Your task to perform on an android device: turn on wifi Image 0: 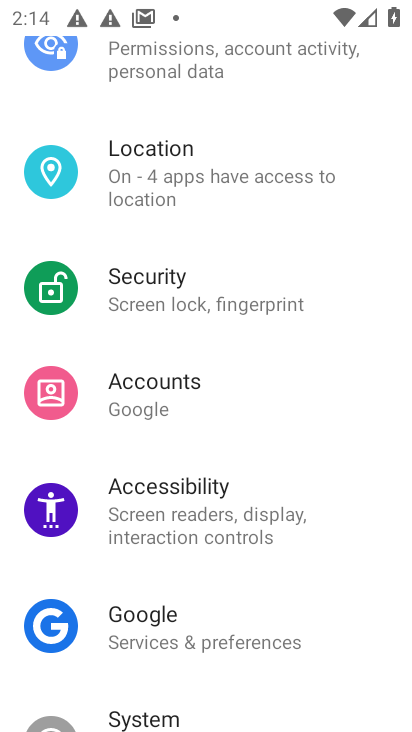
Step 0: press home button
Your task to perform on an android device: turn on wifi Image 1: 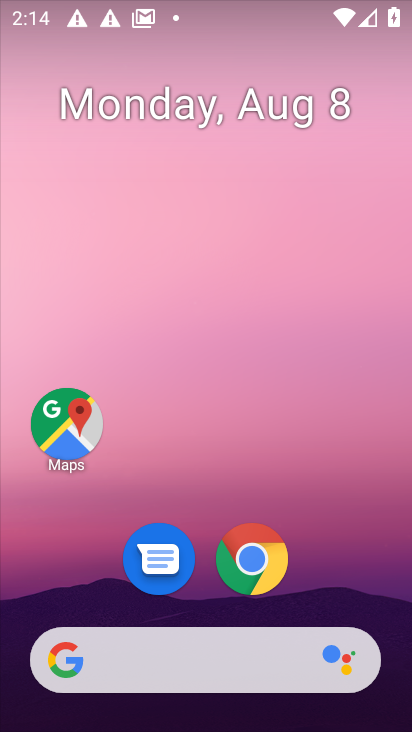
Step 1: drag from (202, 661) to (248, 187)
Your task to perform on an android device: turn on wifi Image 2: 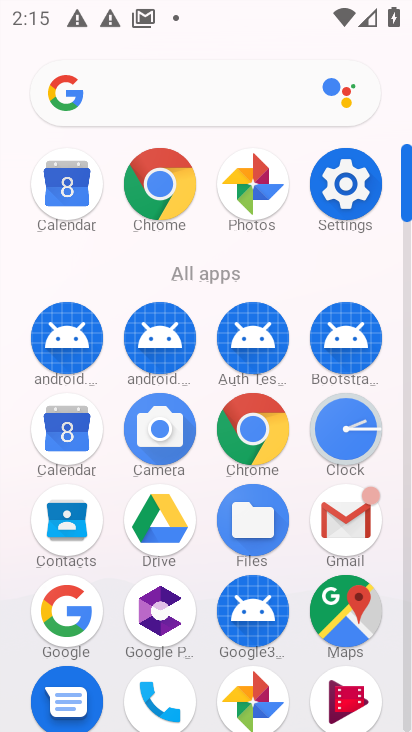
Step 2: click (345, 186)
Your task to perform on an android device: turn on wifi Image 3: 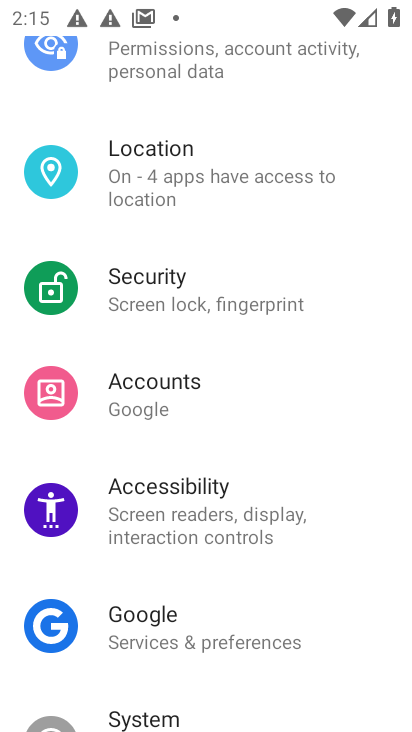
Step 3: drag from (339, 187) to (288, 300)
Your task to perform on an android device: turn on wifi Image 4: 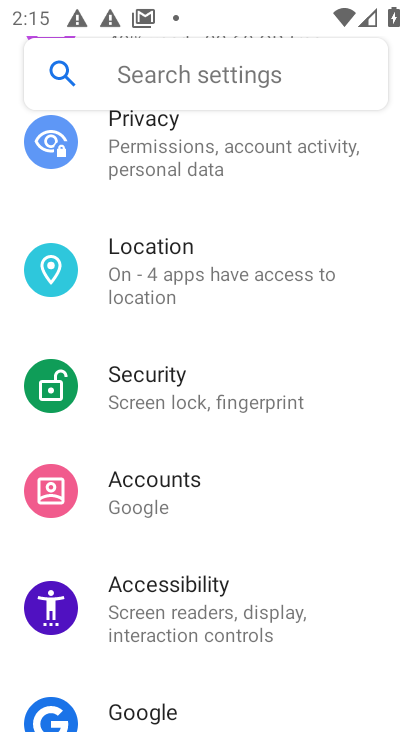
Step 4: drag from (318, 133) to (305, 434)
Your task to perform on an android device: turn on wifi Image 5: 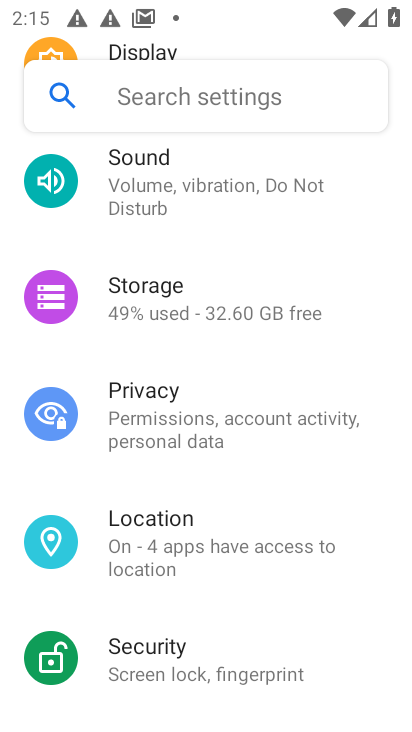
Step 5: drag from (266, 299) to (285, 393)
Your task to perform on an android device: turn on wifi Image 6: 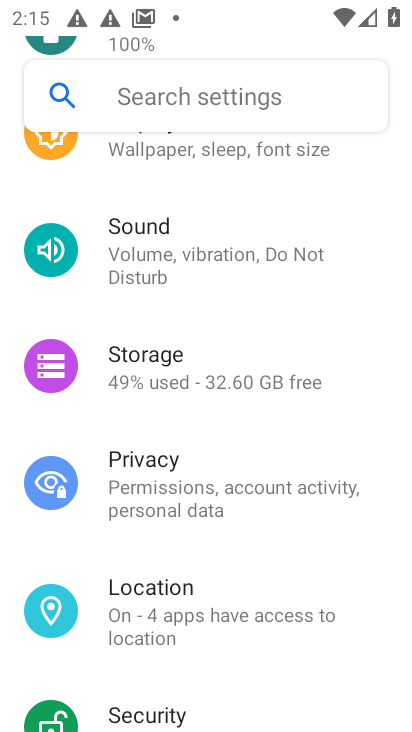
Step 6: drag from (289, 207) to (304, 352)
Your task to perform on an android device: turn on wifi Image 7: 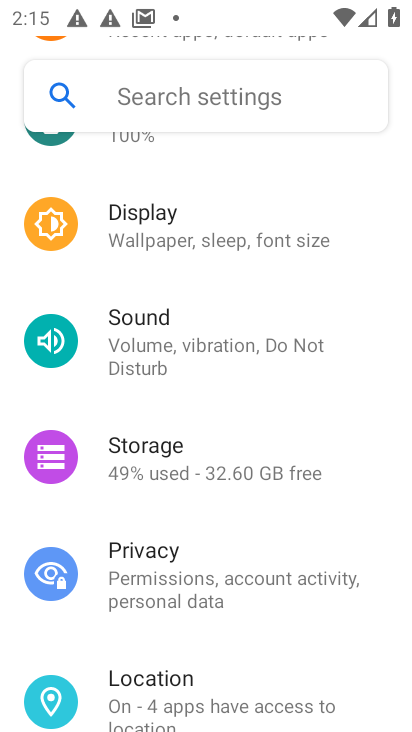
Step 7: drag from (280, 198) to (285, 305)
Your task to perform on an android device: turn on wifi Image 8: 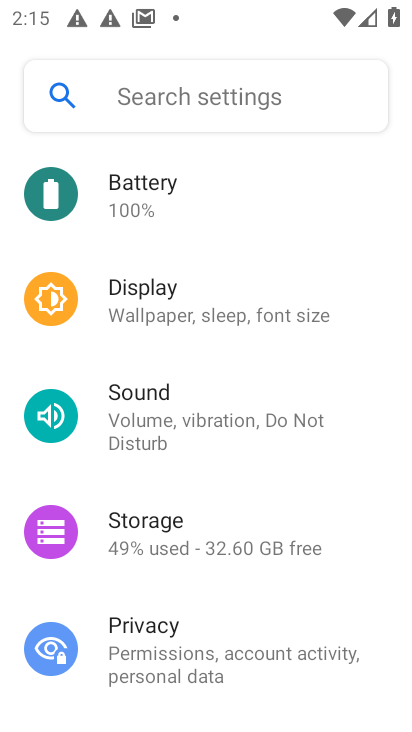
Step 8: drag from (272, 211) to (277, 310)
Your task to perform on an android device: turn on wifi Image 9: 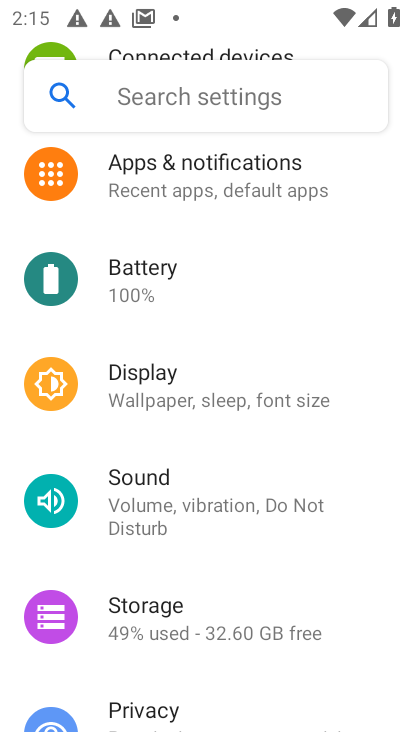
Step 9: drag from (232, 227) to (267, 329)
Your task to perform on an android device: turn on wifi Image 10: 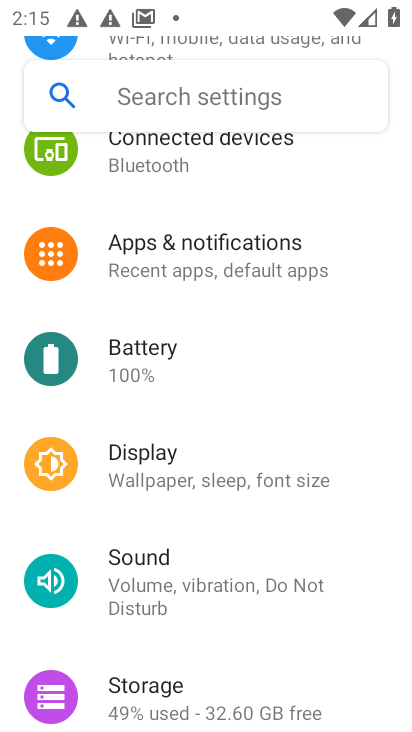
Step 10: drag from (261, 195) to (269, 304)
Your task to perform on an android device: turn on wifi Image 11: 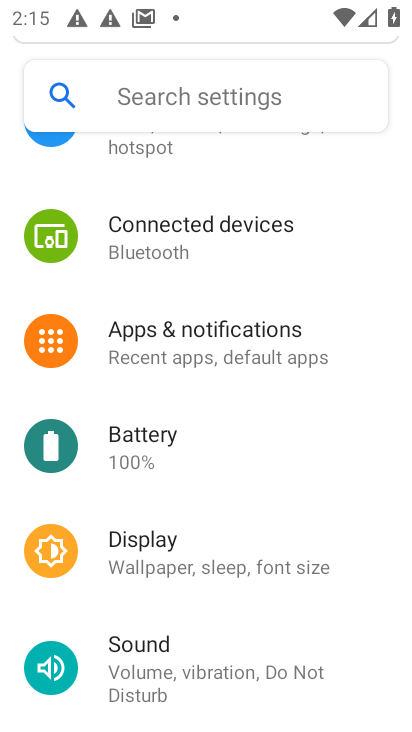
Step 11: drag from (270, 187) to (273, 306)
Your task to perform on an android device: turn on wifi Image 12: 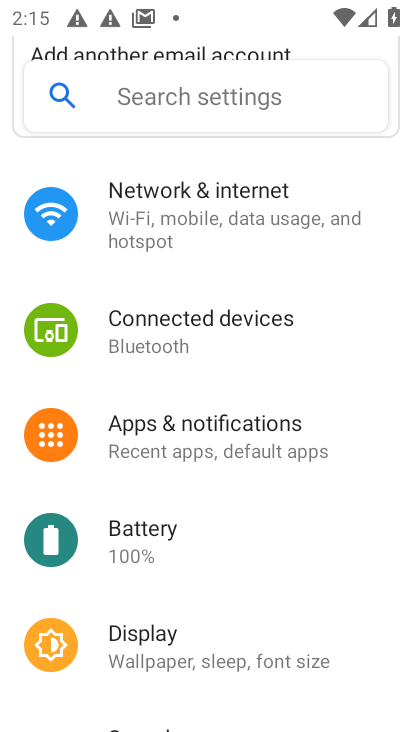
Step 12: click (249, 210)
Your task to perform on an android device: turn on wifi Image 13: 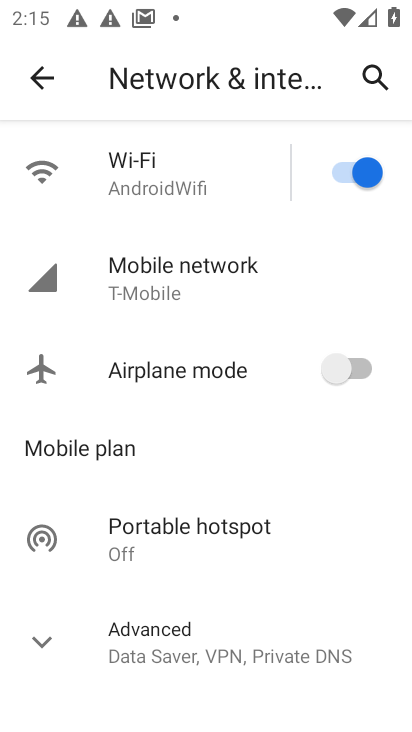
Step 13: task complete